Your task to perform on an android device: Search for a good pizza place on Maps Image 0: 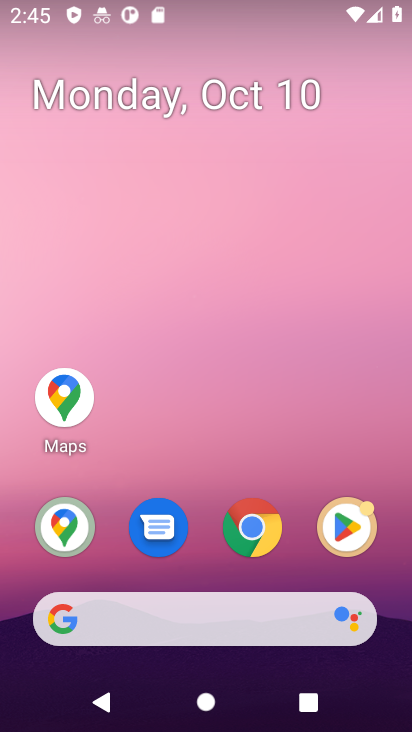
Step 0: click (62, 527)
Your task to perform on an android device: Search for a good pizza place on Maps Image 1: 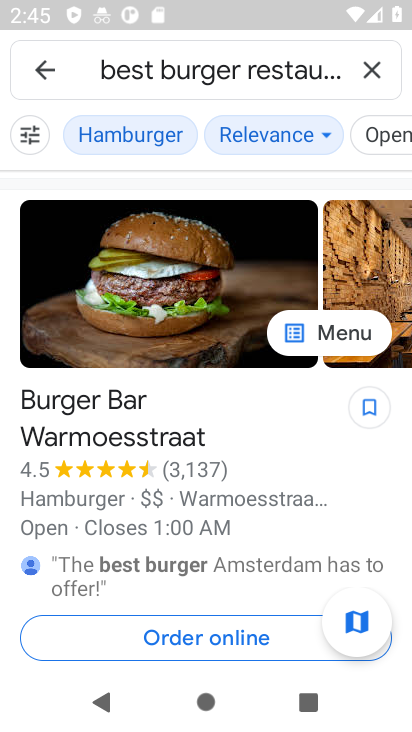
Step 1: click (371, 76)
Your task to perform on an android device: Search for a good pizza place on Maps Image 2: 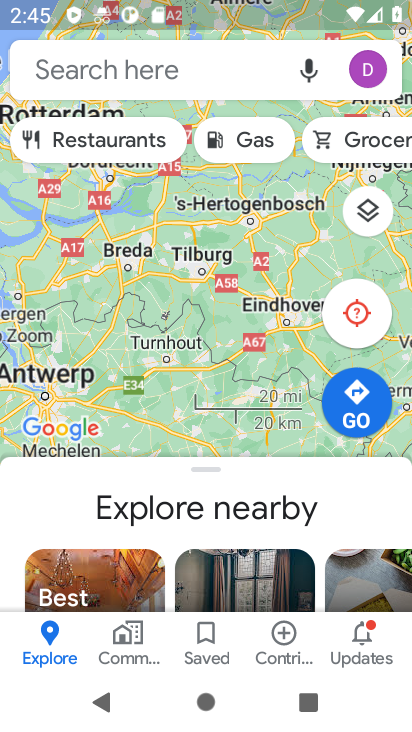
Step 2: click (240, 69)
Your task to perform on an android device: Search for a good pizza place on Maps Image 3: 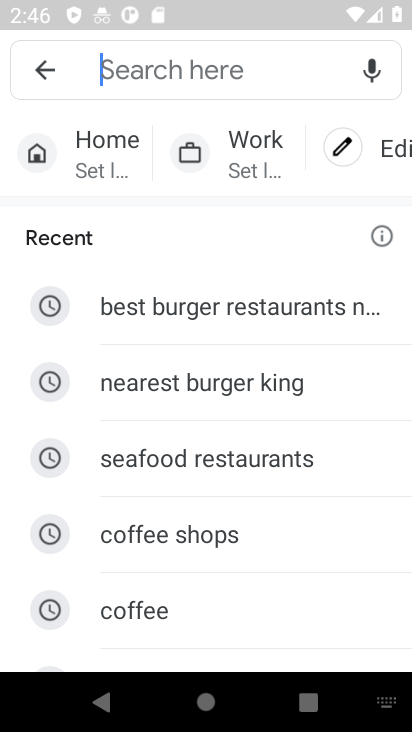
Step 3: type "good pizza place"
Your task to perform on an android device: Search for a good pizza place on Maps Image 4: 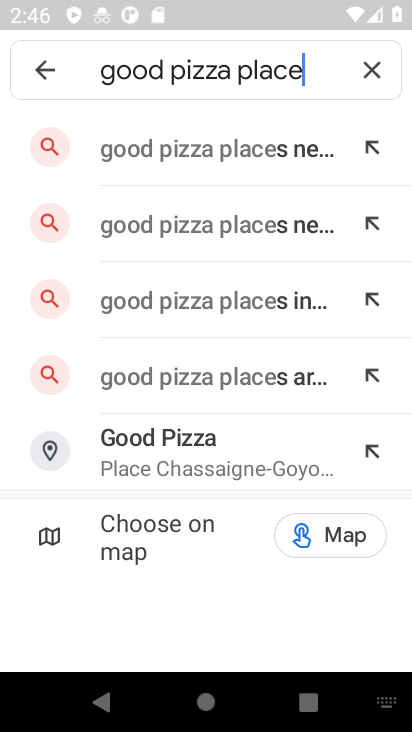
Step 4: click (180, 148)
Your task to perform on an android device: Search for a good pizza place on Maps Image 5: 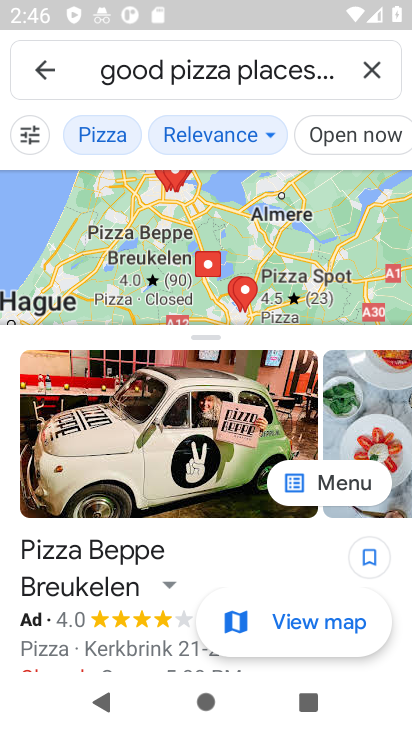
Step 5: task complete